Your task to perform on an android device: search for starred emails in the gmail app Image 0: 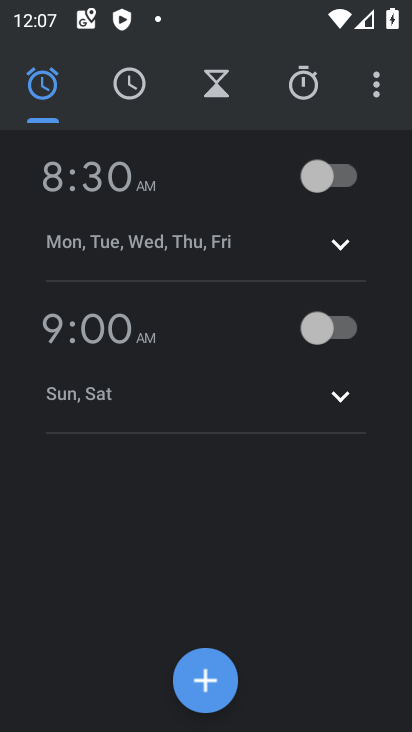
Step 0: press home button
Your task to perform on an android device: search for starred emails in the gmail app Image 1: 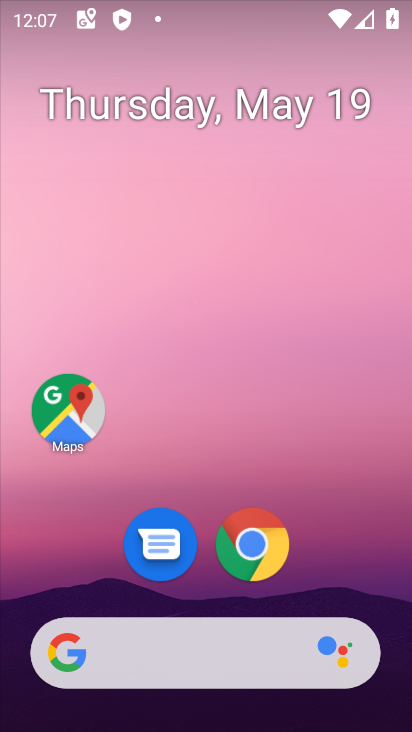
Step 1: drag from (247, 726) to (365, 108)
Your task to perform on an android device: search for starred emails in the gmail app Image 2: 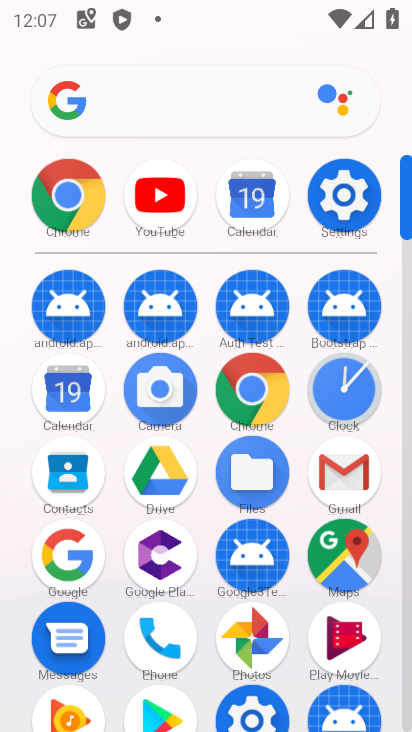
Step 2: click (365, 480)
Your task to perform on an android device: search for starred emails in the gmail app Image 3: 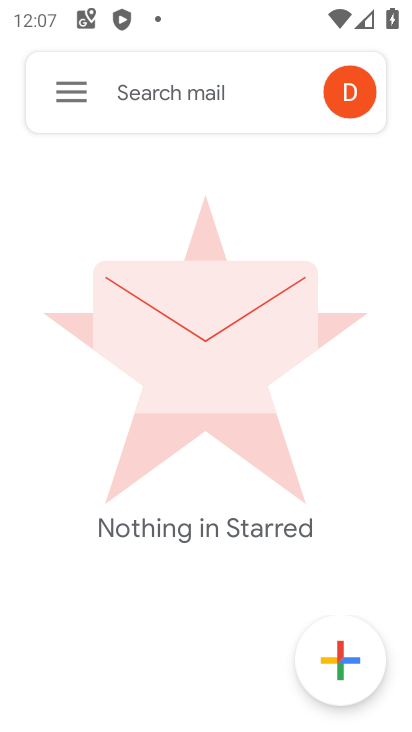
Step 3: click (77, 96)
Your task to perform on an android device: search for starred emails in the gmail app Image 4: 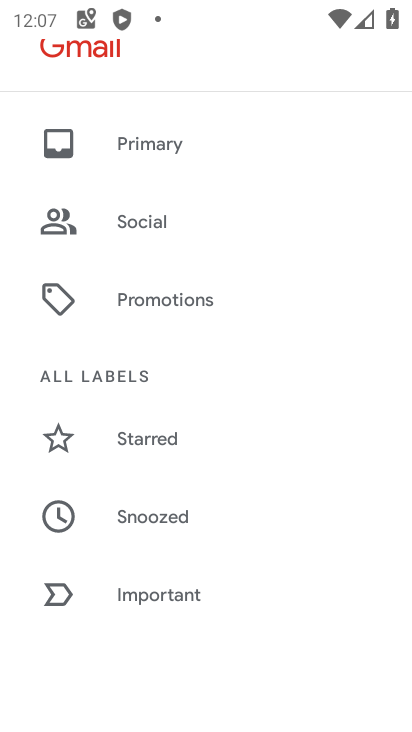
Step 4: click (154, 445)
Your task to perform on an android device: search for starred emails in the gmail app Image 5: 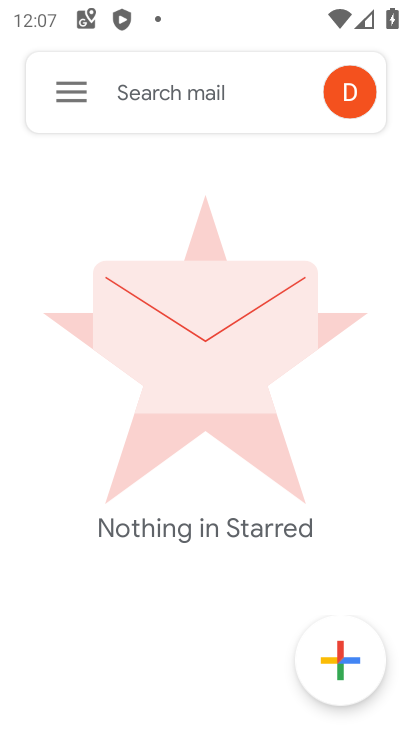
Step 5: task complete